Your task to perform on an android device: search for starred emails in the gmail app Image 0: 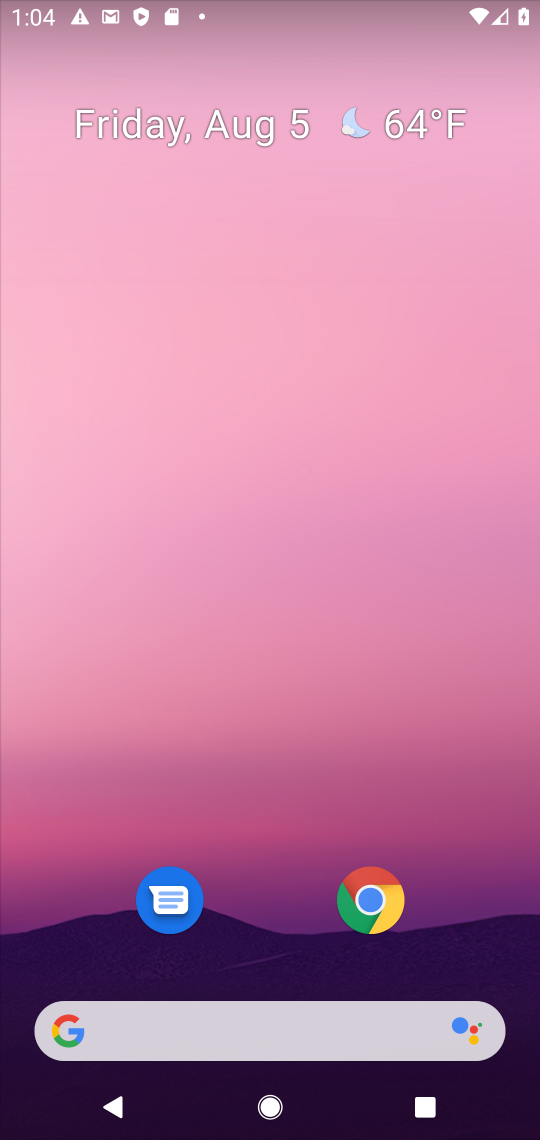
Step 0: drag from (297, 955) to (271, 100)
Your task to perform on an android device: search for starred emails in the gmail app Image 1: 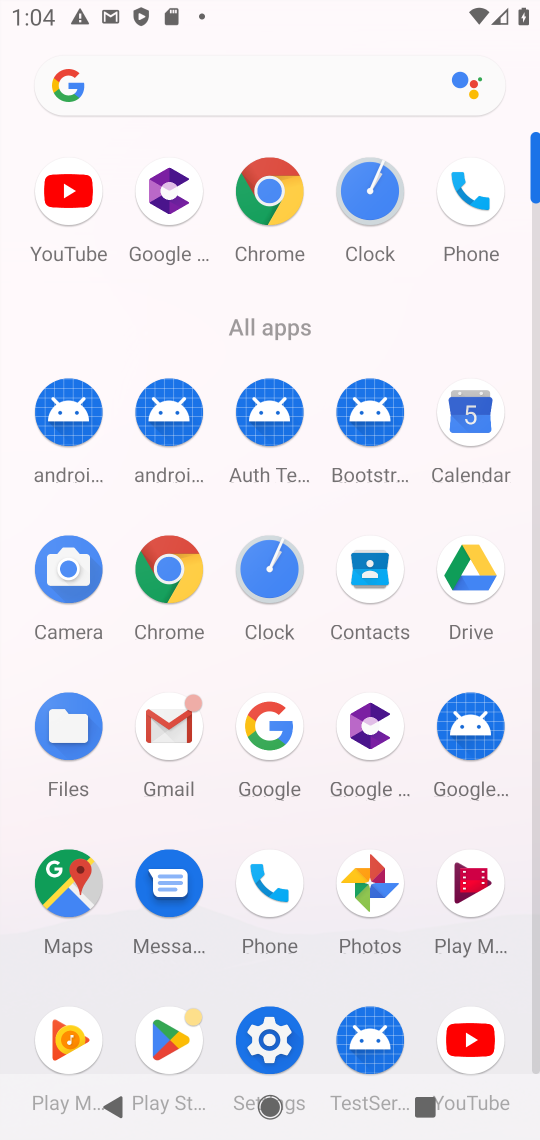
Step 1: click (167, 713)
Your task to perform on an android device: search for starred emails in the gmail app Image 2: 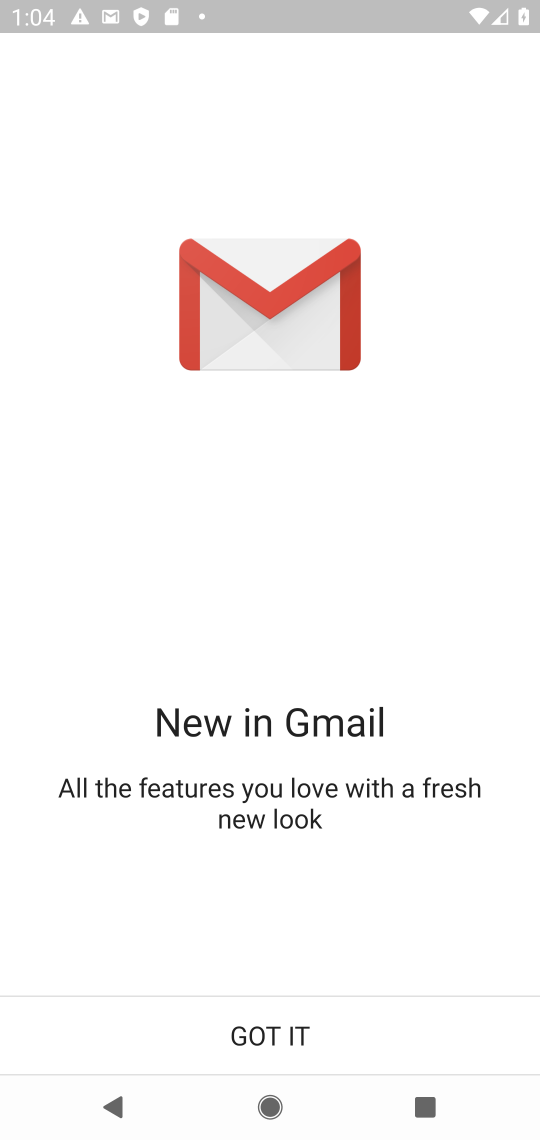
Step 2: click (269, 1033)
Your task to perform on an android device: search for starred emails in the gmail app Image 3: 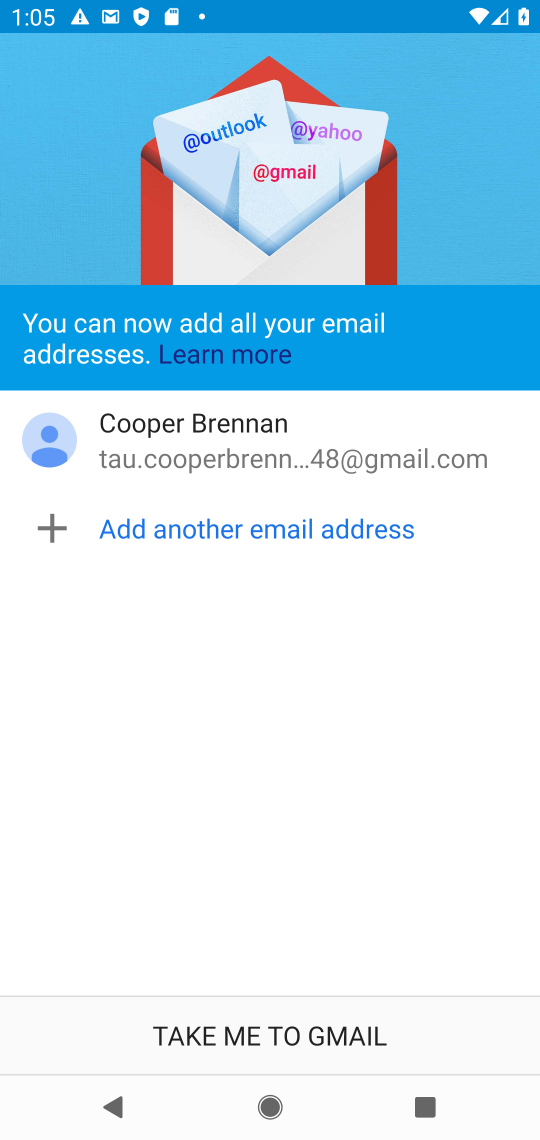
Step 3: click (277, 1038)
Your task to perform on an android device: search for starred emails in the gmail app Image 4: 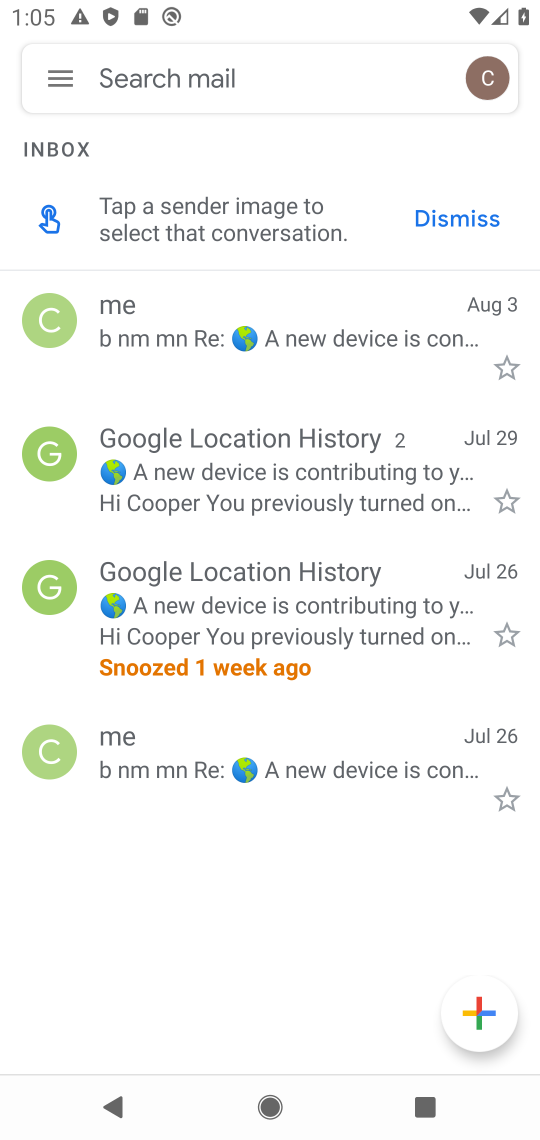
Step 4: click (48, 67)
Your task to perform on an android device: search for starred emails in the gmail app Image 5: 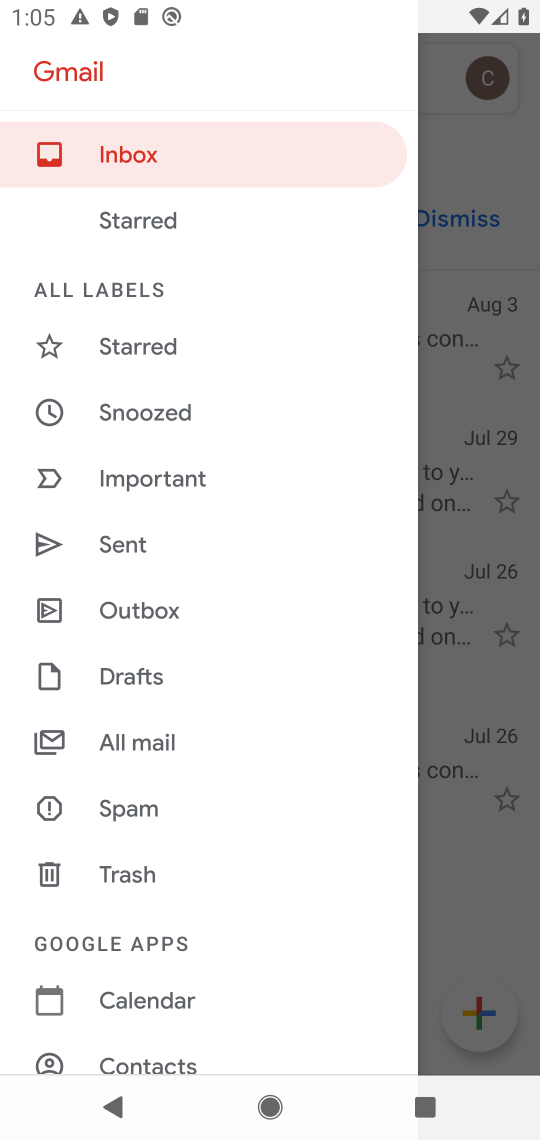
Step 5: click (177, 227)
Your task to perform on an android device: search for starred emails in the gmail app Image 6: 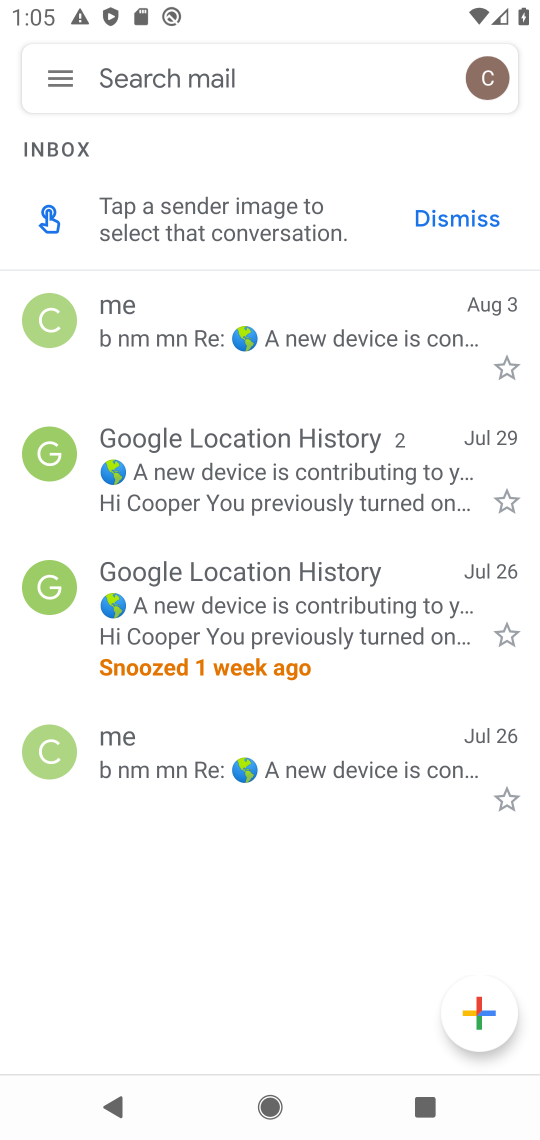
Step 6: task complete